Your task to perform on an android device: turn vacation reply on in the gmail app Image 0: 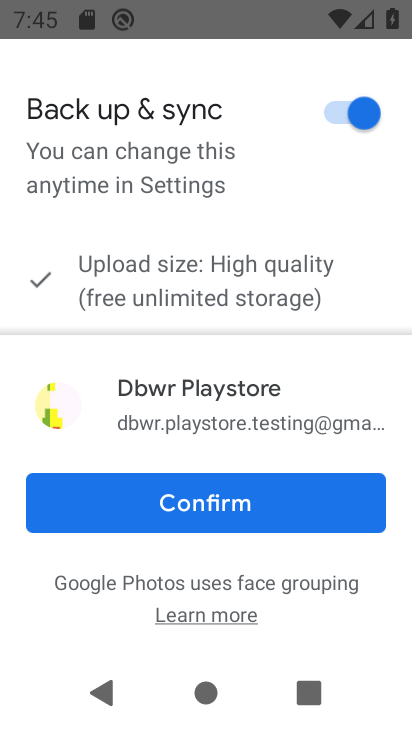
Step 0: press home button
Your task to perform on an android device: turn vacation reply on in the gmail app Image 1: 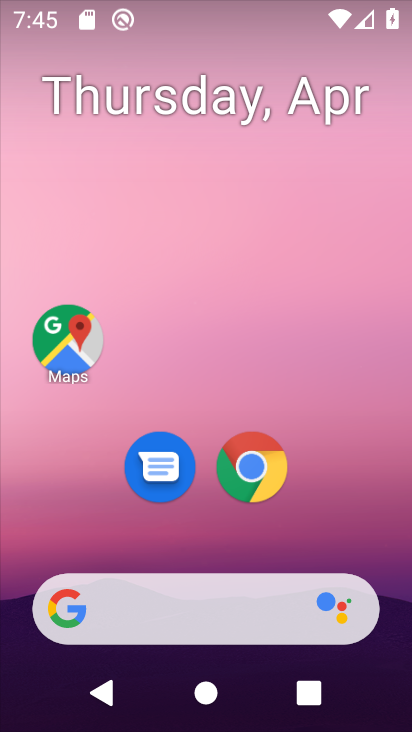
Step 1: drag from (223, 602) to (250, 88)
Your task to perform on an android device: turn vacation reply on in the gmail app Image 2: 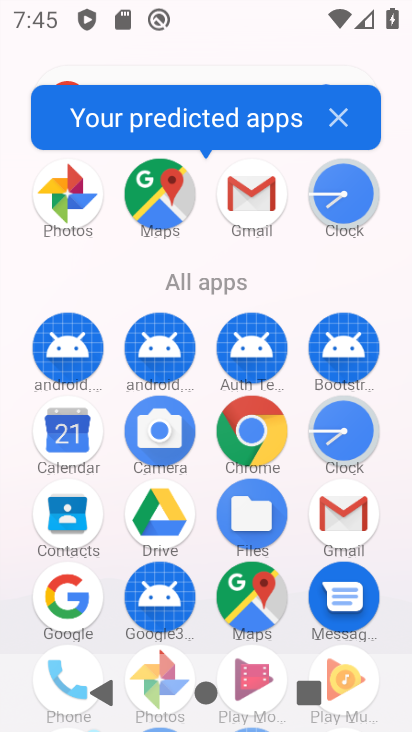
Step 2: click (248, 210)
Your task to perform on an android device: turn vacation reply on in the gmail app Image 3: 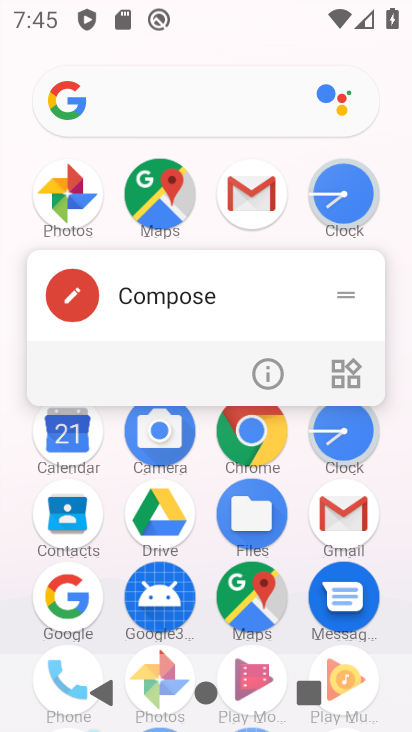
Step 3: click (240, 205)
Your task to perform on an android device: turn vacation reply on in the gmail app Image 4: 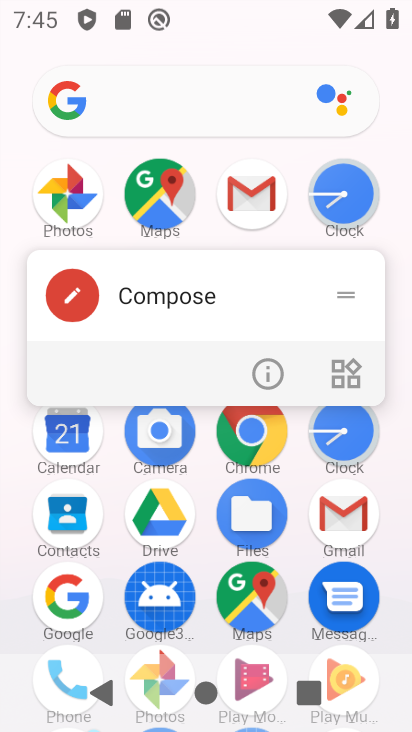
Step 4: click (240, 205)
Your task to perform on an android device: turn vacation reply on in the gmail app Image 5: 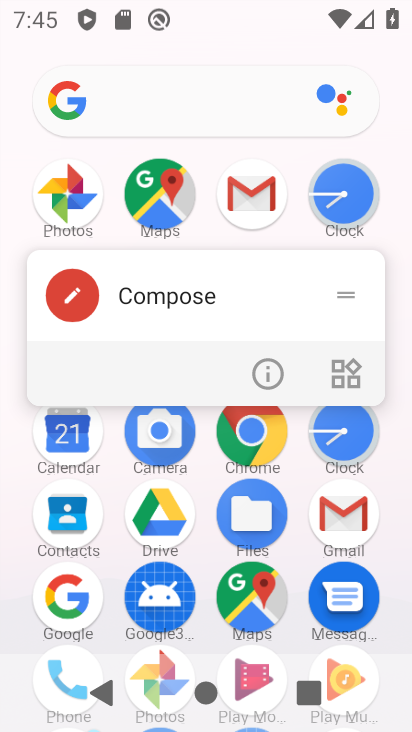
Step 5: click (240, 205)
Your task to perform on an android device: turn vacation reply on in the gmail app Image 6: 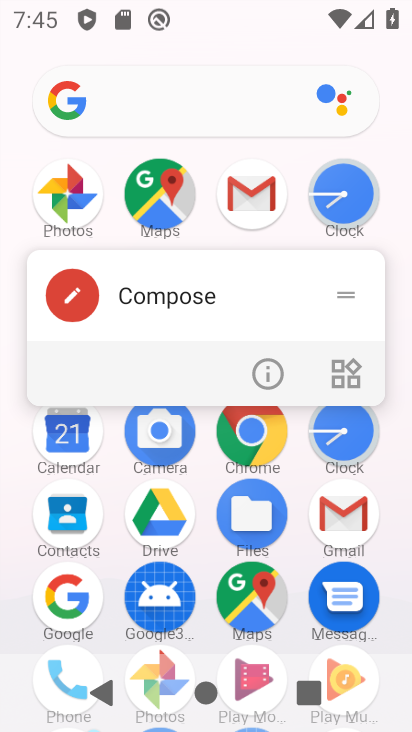
Step 6: click (240, 205)
Your task to perform on an android device: turn vacation reply on in the gmail app Image 7: 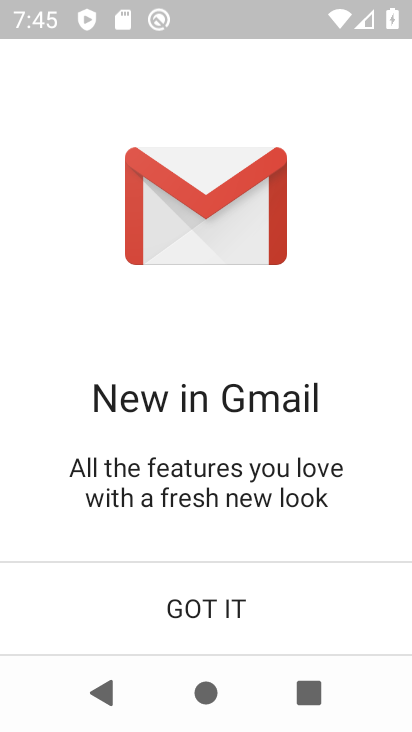
Step 7: click (205, 616)
Your task to perform on an android device: turn vacation reply on in the gmail app Image 8: 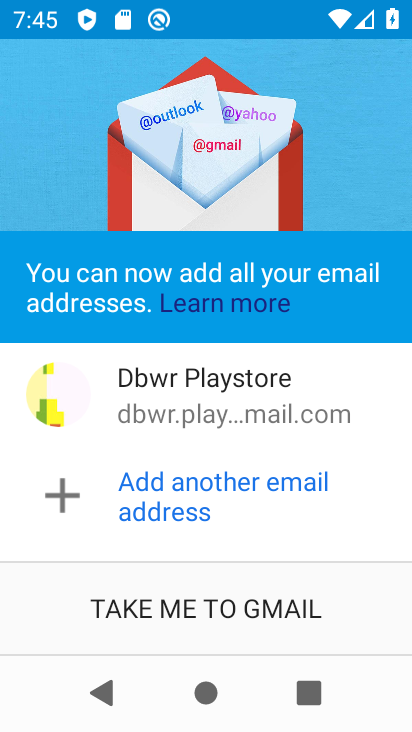
Step 8: click (205, 616)
Your task to perform on an android device: turn vacation reply on in the gmail app Image 9: 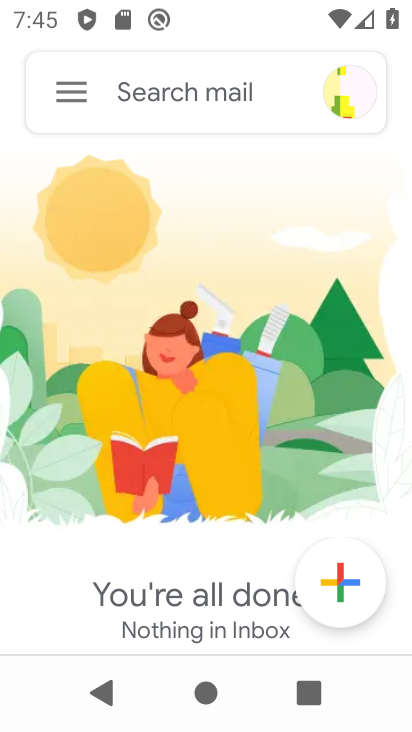
Step 9: click (71, 104)
Your task to perform on an android device: turn vacation reply on in the gmail app Image 10: 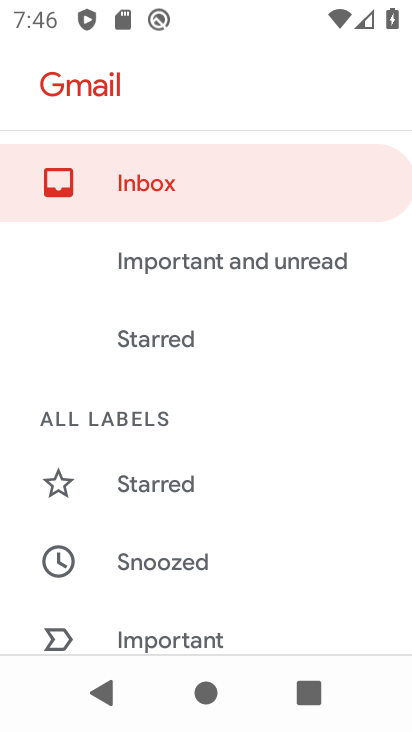
Step 10: drag from (224, 634) to (188, 94)
Your task to perform on an android device: turn vacation reply on in the gmail app Image 11: 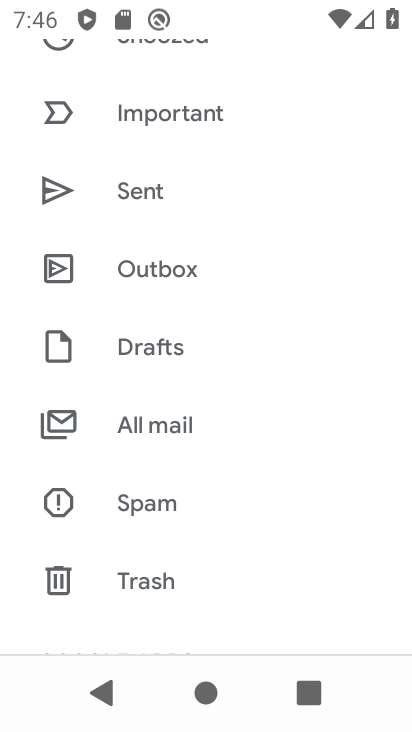
Step 11: drag from (246, 610) to (227, 112)
Your task to perform on an android device: turn vacation reply on in the gmail app Image 12: 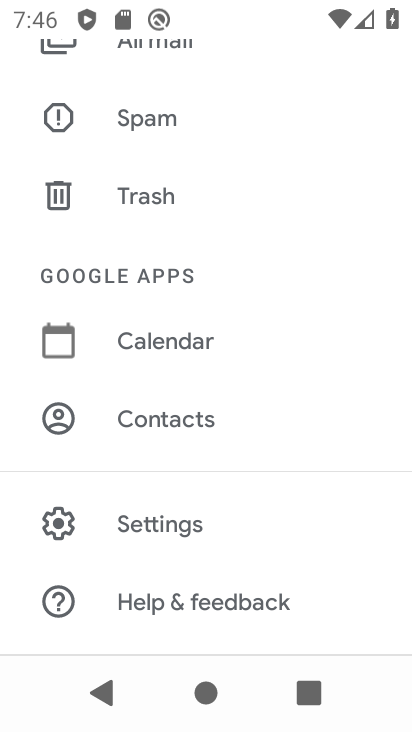
Step 12: click (160, 518)
Your task to perform on an android device: turn vacation reply on in the gmail app Image 13: 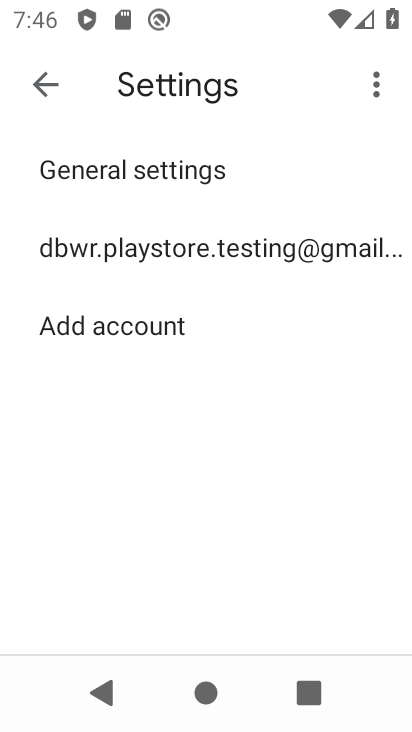
Step 13: click (206, 256)
Your task to perform on an android device: turn vacation reply on in the gmail app Image 14: 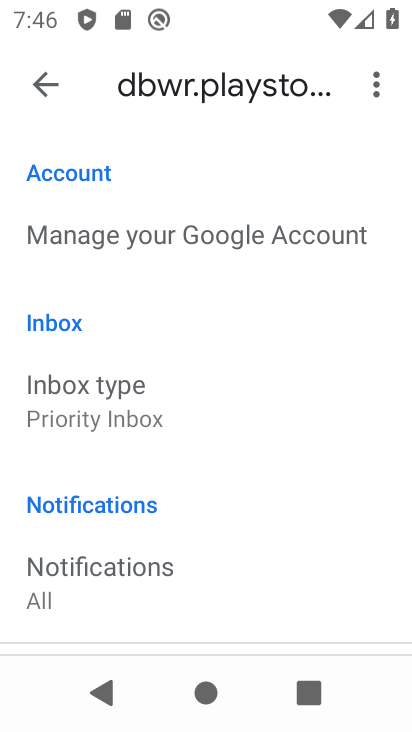
Step 14: drag from (196, 563) to (163, 41)
Your task to perform on an android device: turn vacation reply on in the gmail app Image 15: 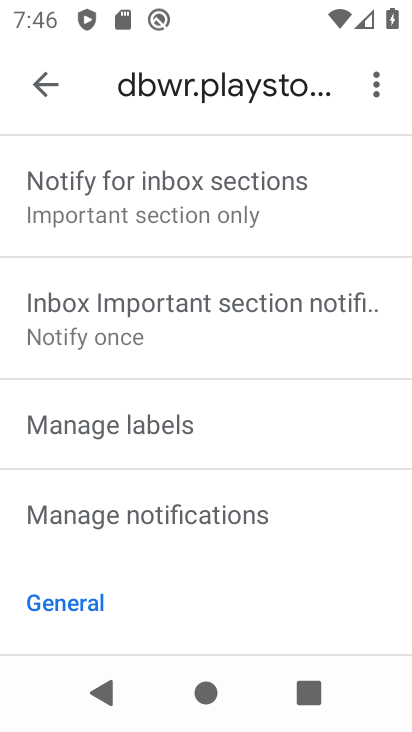
Step 15: drag from (158, 554) to (123, 45)
Your task to perform on an android device: turn vacation reply on in the gmail app Image 16: 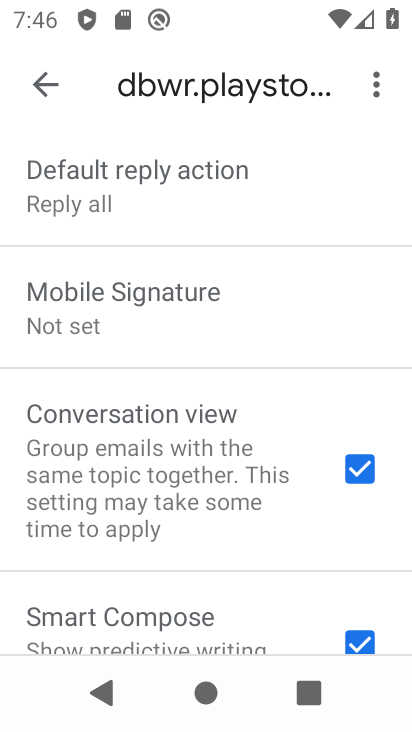
Step 16: drag from (200, 540) to (131, 19)
Your task to perform on an android device: turn vacation reply on in the gmail app Image 17: 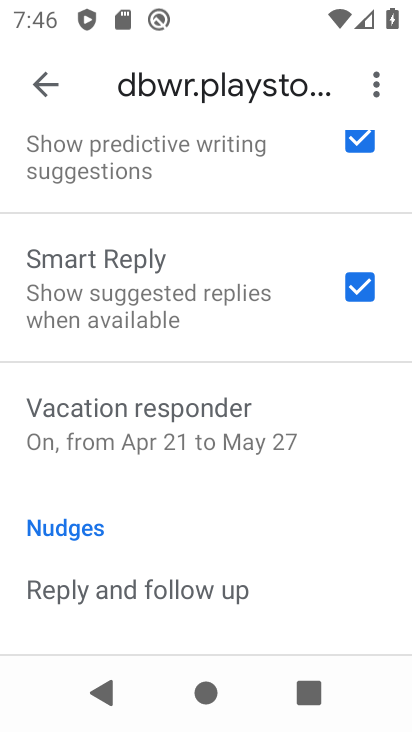
Step 17: click (167, 437)
Your task to perform on an android device: turn vacation reply on in the gmail app Image 18: 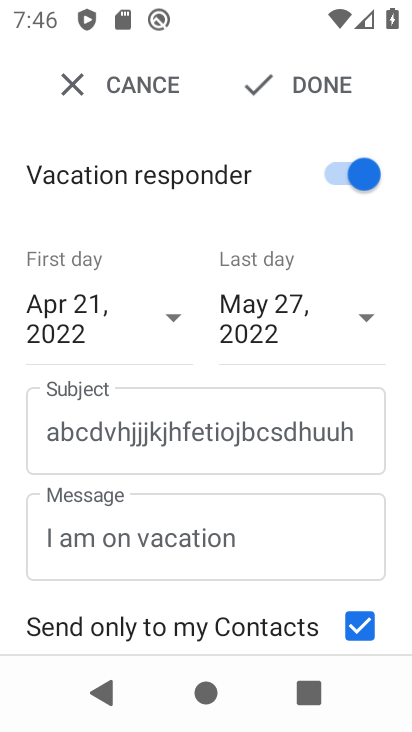
Step 18: click (285, 77)
Your task to perform on an android device: turn vacation reply on in the gmail app Image 19: 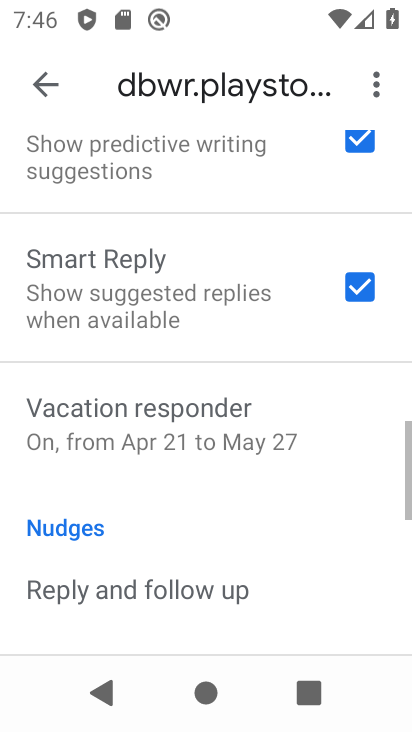
Step 19: task complete